Your task to perform on an android device: Search for the new Nike Air Max 270 on Nike.com Image 0: 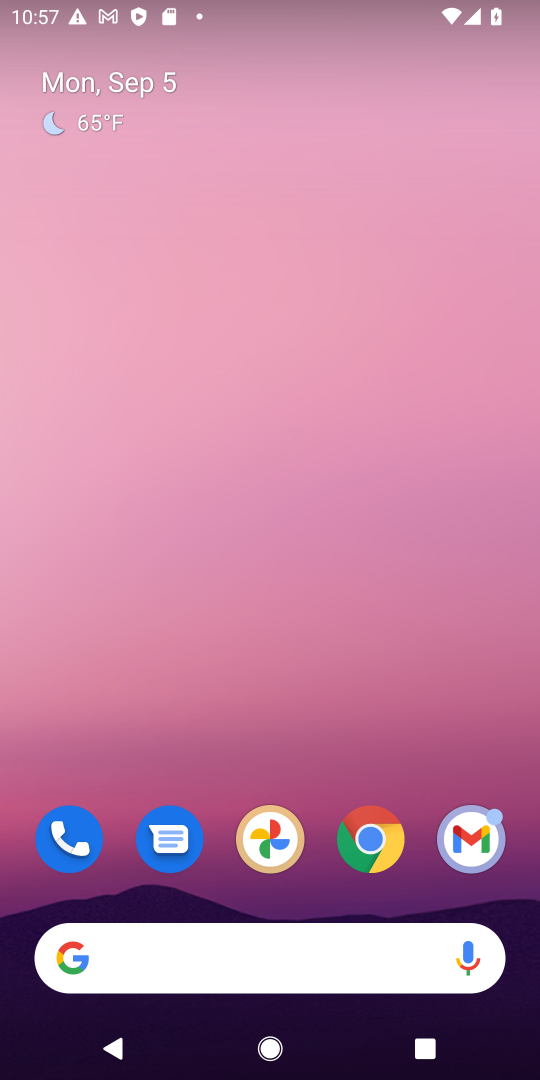
Step 0: drag from (291, 657) to (293, 174)
Your task to perform on an android device: Search for the new Nike Air Max 270 on Nike.com Image 1: 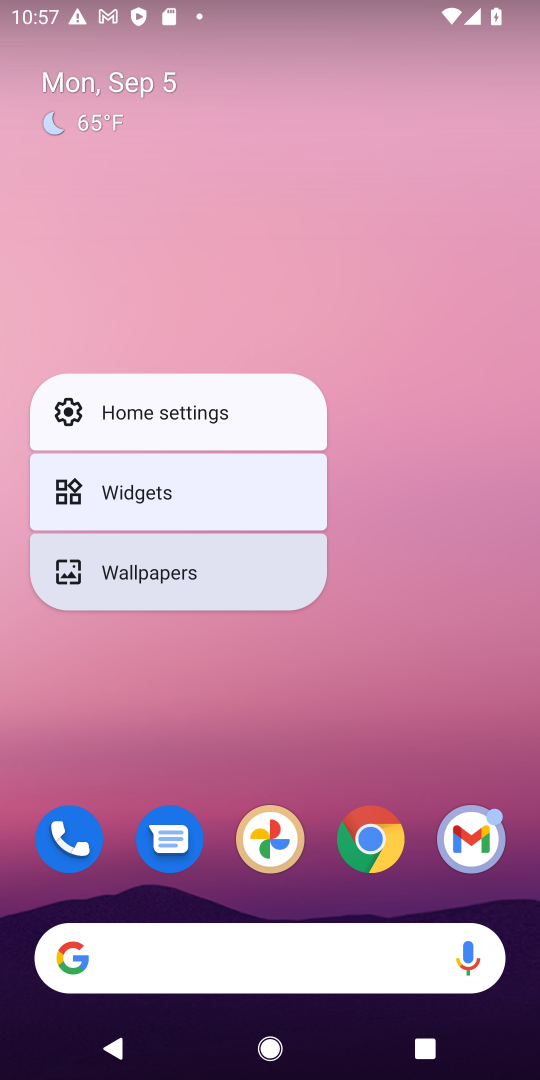
Step 1: click (293, 746)
Your task to perform on an android device: Search for the new Nike Air Max 270 on Nike.com Image 2: 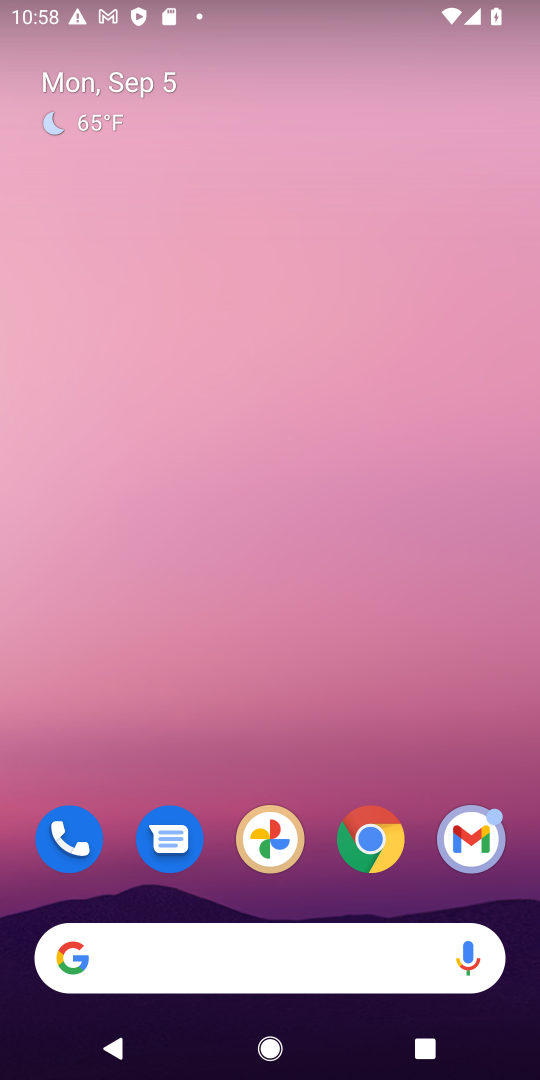
Step 2: drag from (311, 932) to (375, 140)
Your task to perform on an android device: Search for the new Nike Air Max 270 on Nike.com Image 3: 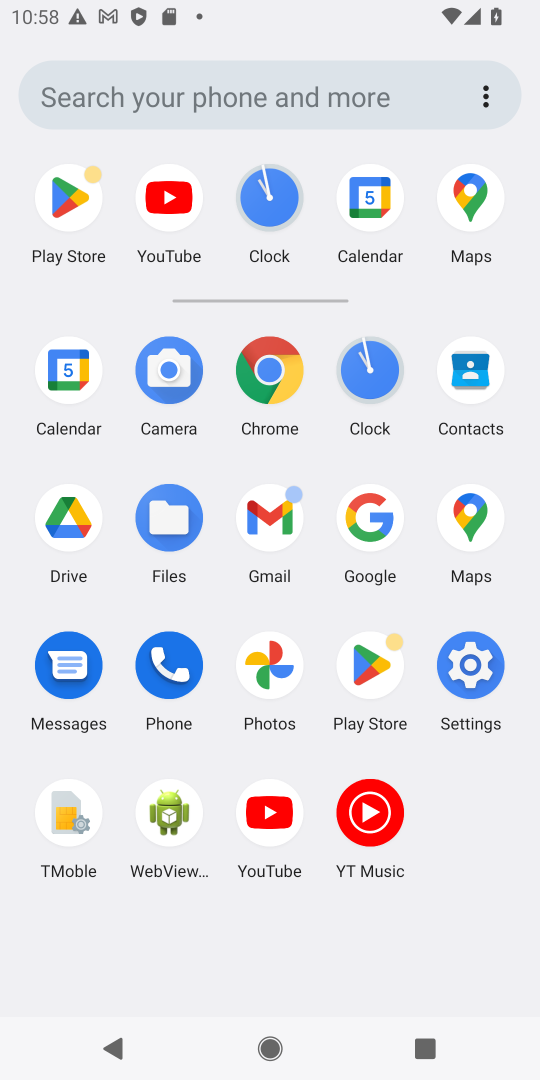
Step 3: click (358, 524)
Your task to perform on an android device: Search for the new Nike Air Max 270 on Nike.com Image 4: 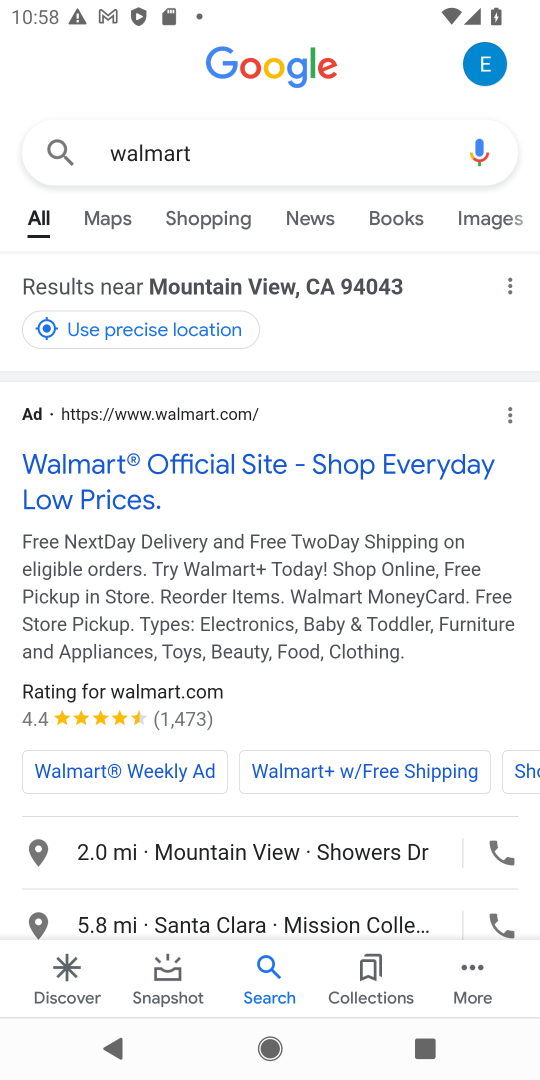
Step 4: click (262, 173)
Your task to perform on an android device: Search for the new Nike Air Max 270 on Nike.com Image 5: 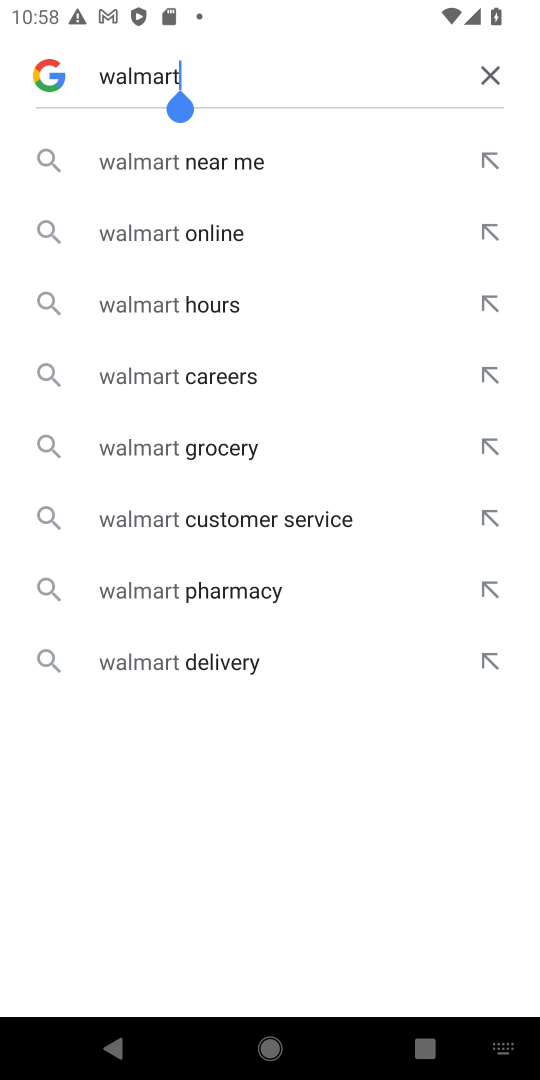
Step 5: click (485, 75)
Your task to perform on an android device: Search for the new Nike Air Max 270 on Nike.com Image 6: 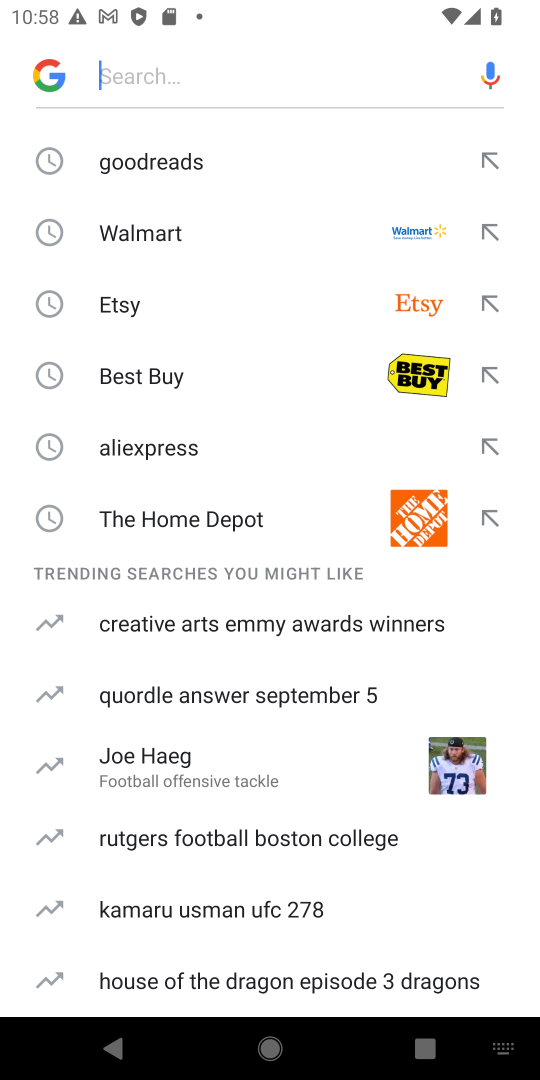
Step 6: type "Nike.com"
Your task to perform on an android device: Search for the new Nike Air Max 270 on Nike.com Image 7: 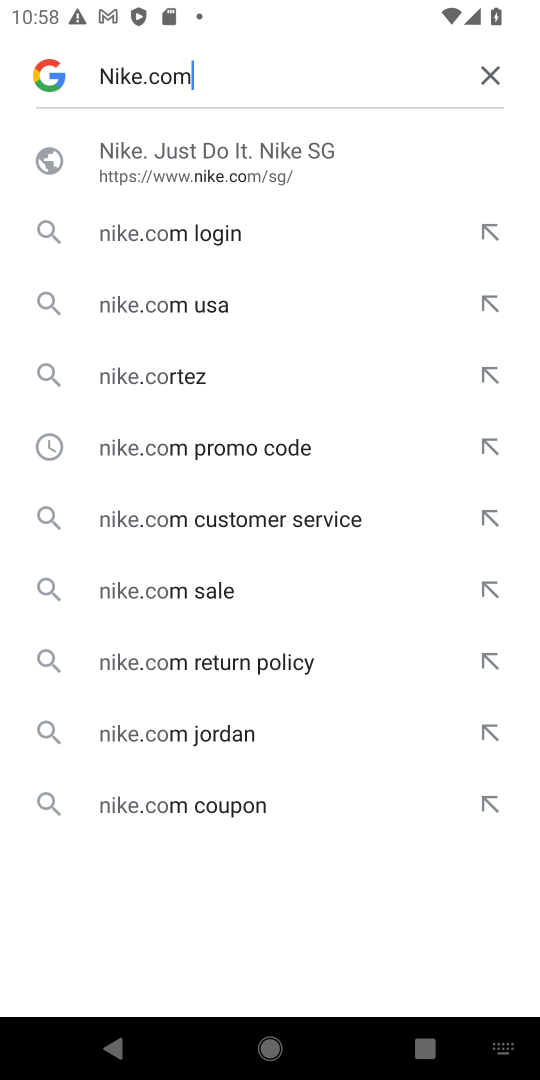
Step 7: click (163, 163)
Your task to perform on an android device: Search for the new Nike Air Max 270 on Nike.com Image 8: 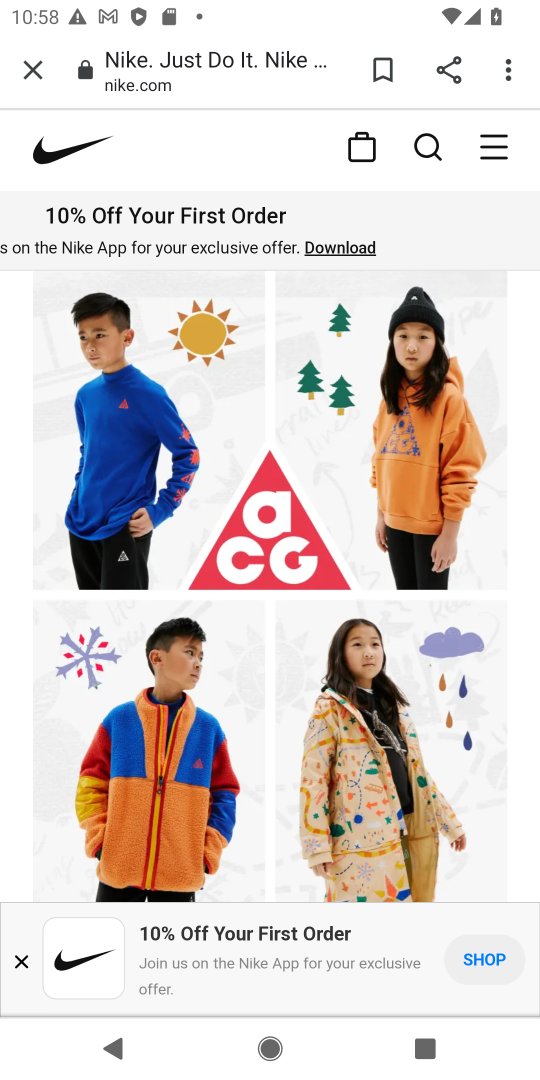
Step 8: click (429, 152)
Your task to perform on an android device: Search for the new Nike Air Max 270 on Nike.com Image 9: 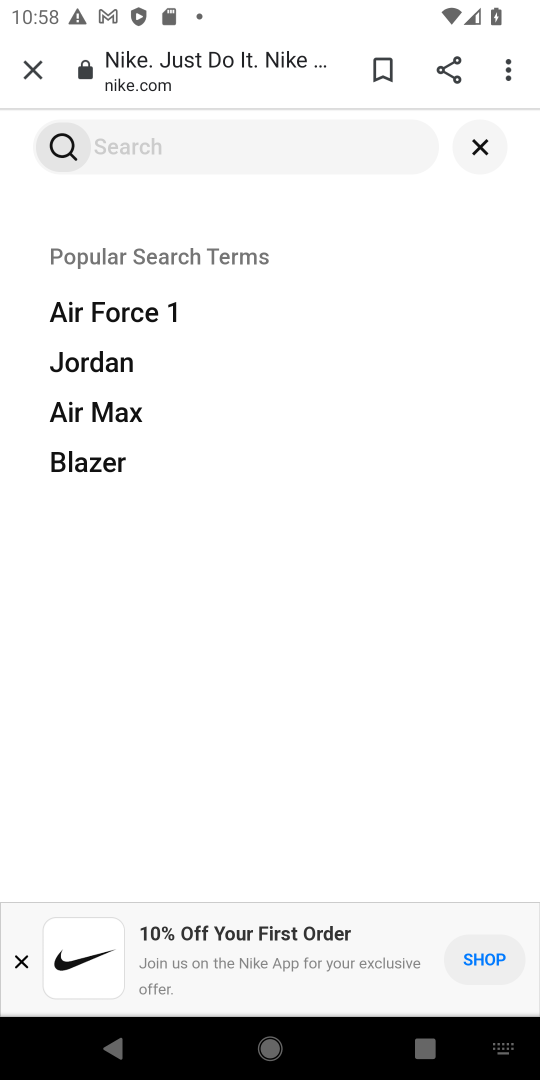
Step 9: type "Nike Air Max 270"
Your task to perform on an android device: Search for the new Nike Air Max 270 on Nike.com Image 10: 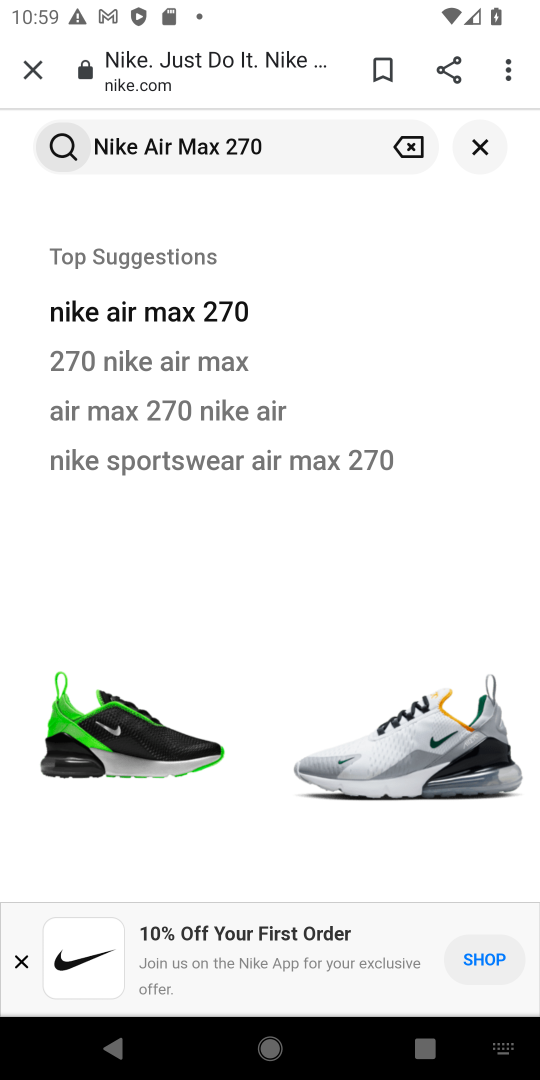
Step 10: click (176, 316)
Your task to perform on an android device: Search for the new Nike Air Max 270 on Nike.com Image 11: 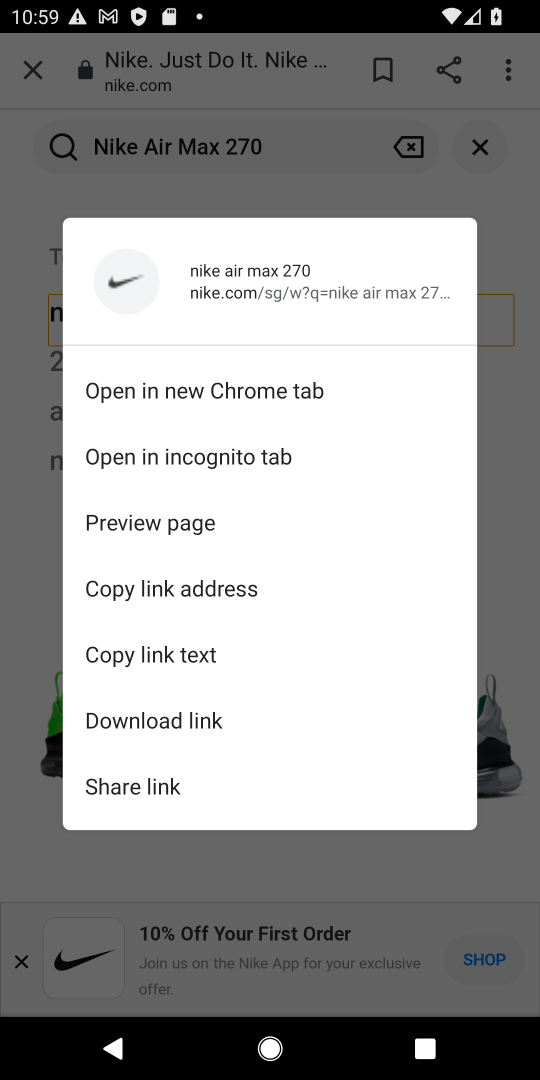
Step 11: click (22, 178)
Your task to perform on an android device: Search for the new Nike Air Max 270 on Nike.com Image 12: 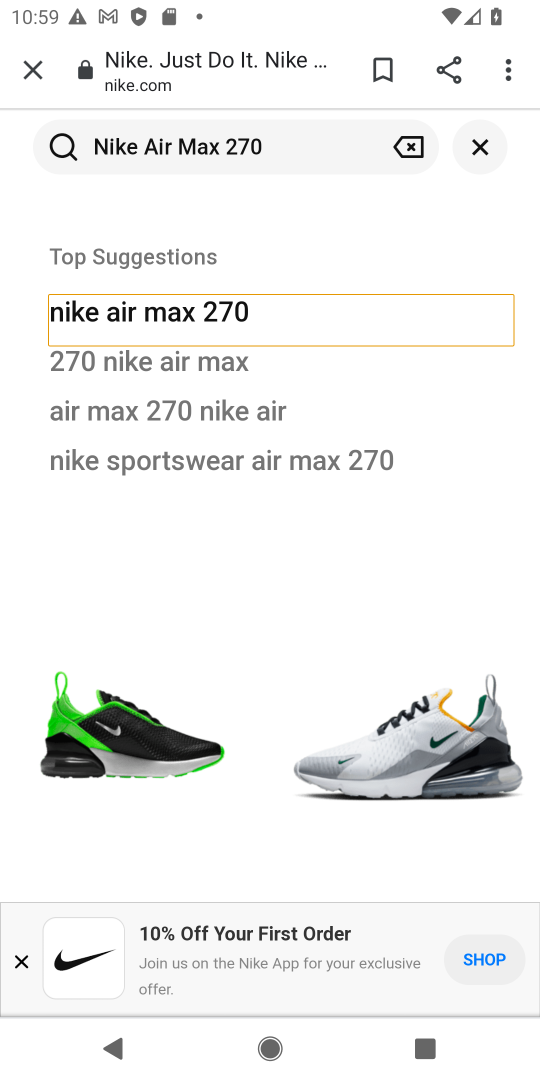
Step 12: click (111, 320)
Your task to perform on an android device: Search for the new Nike Air Max 270 on Nike.com Image 13: 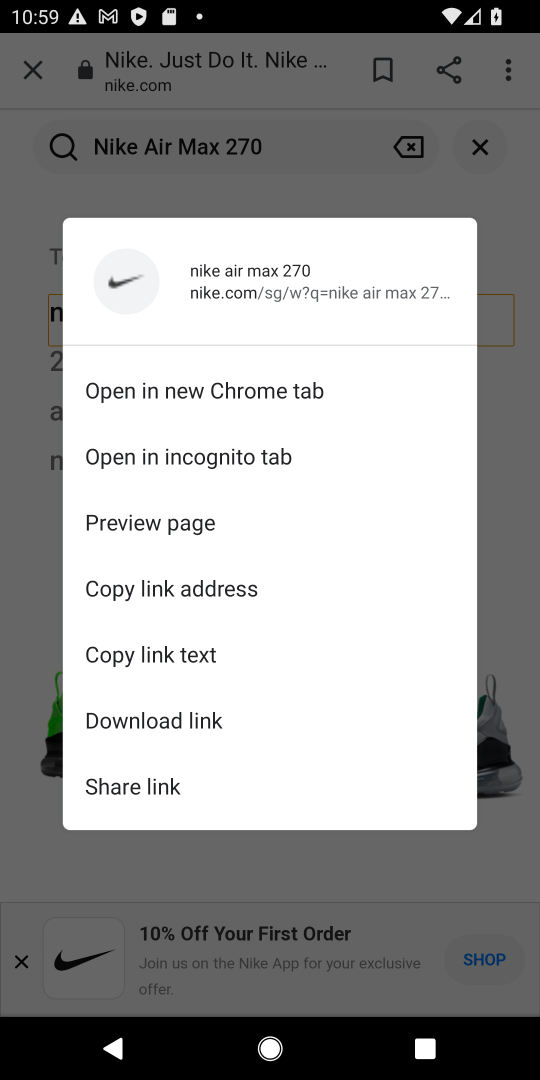
Step 13: click (18, 217)
Your task to perform on an android device: Search for the new Nike Air Max 270 on Nike.com Image 14: 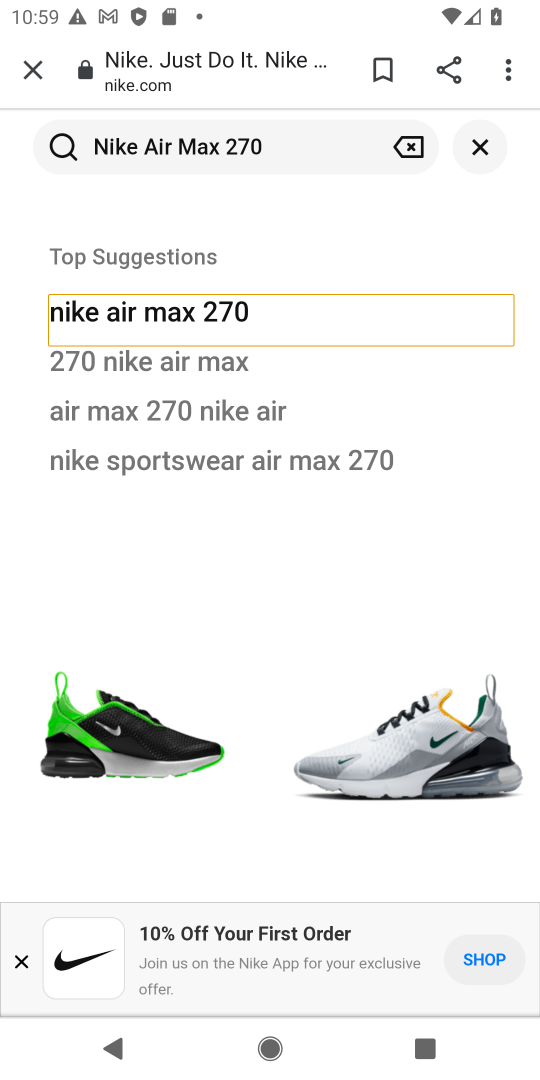
Step 14: click (177, 307)
Your task to perform on an android device: Search for the new Nike Air Max 270 on Nike.com Image 15: 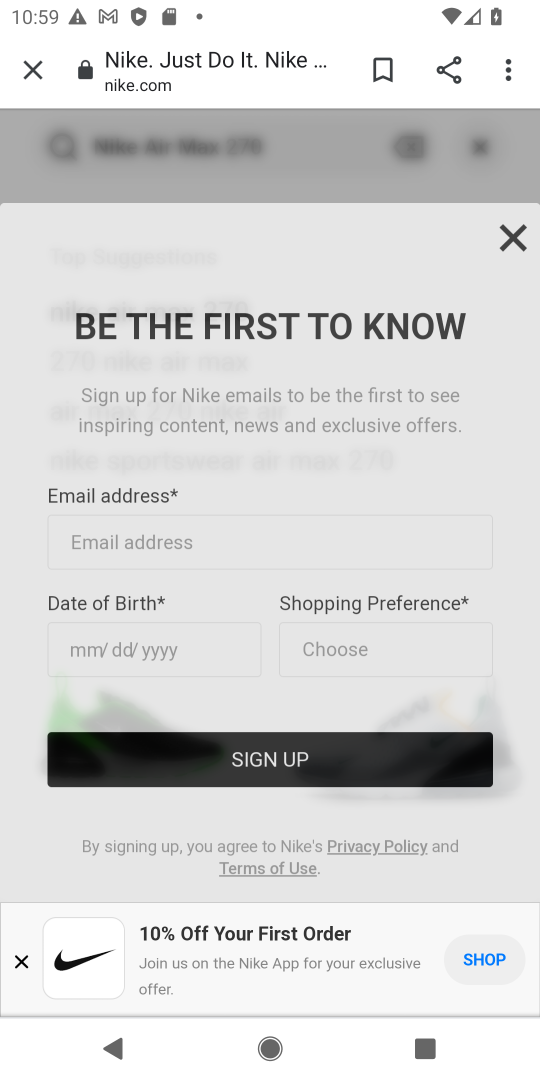
Step 15: click (513, 237)
Your task to perform on an android device: Search for the new Nike Air Max 270 on Nike.com Image 16: 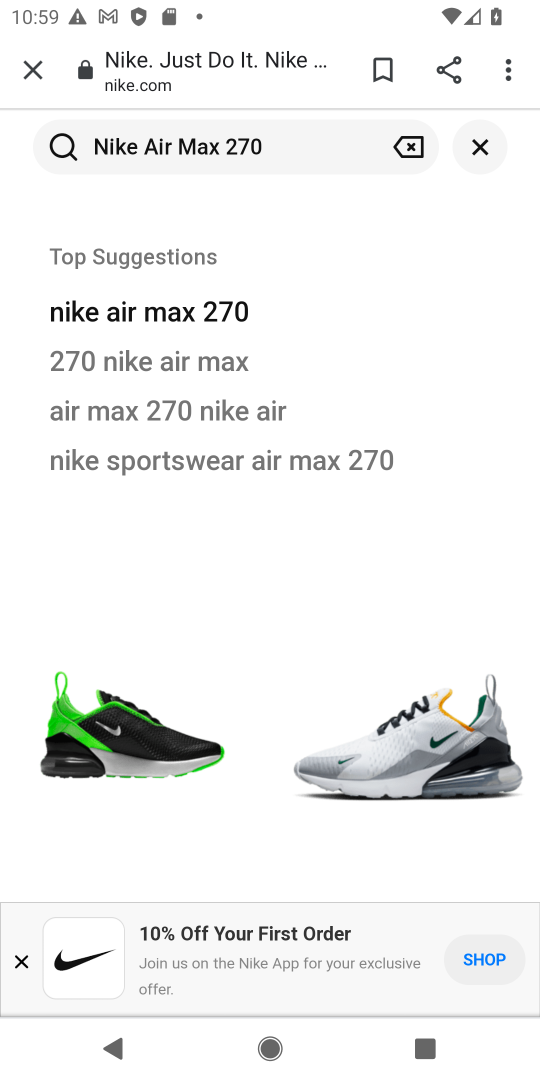
Step 16: task complete